Your task to perform on an android device: change the clock display to digital Image 0: 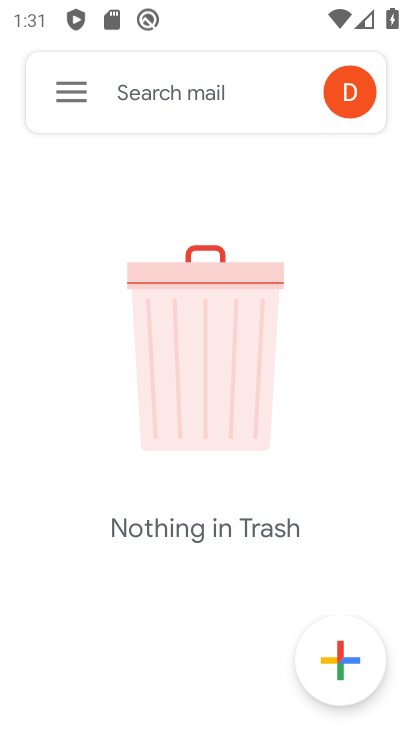
Step 0: press home button
Your task to perform on an android device: change the clock display to digital Image 1: 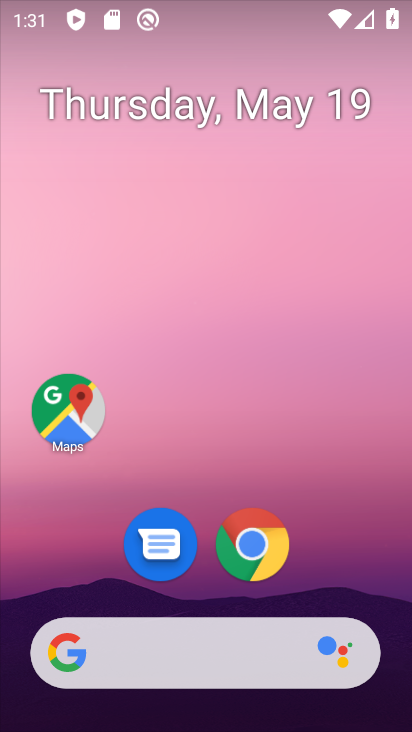
Step 1: drag from (239, 700) to (302, 111)
Your task to perform on an android device: change the clock display to digital Image 2: 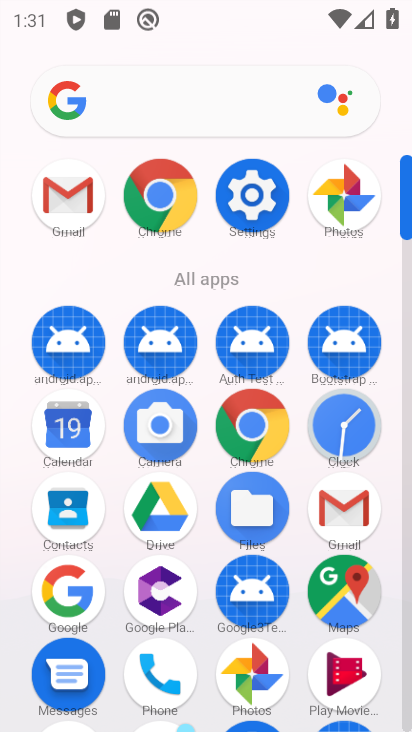
Step 2: click (346, 405)
Your task to perform on an android device: change the clock display to digital Image 3: 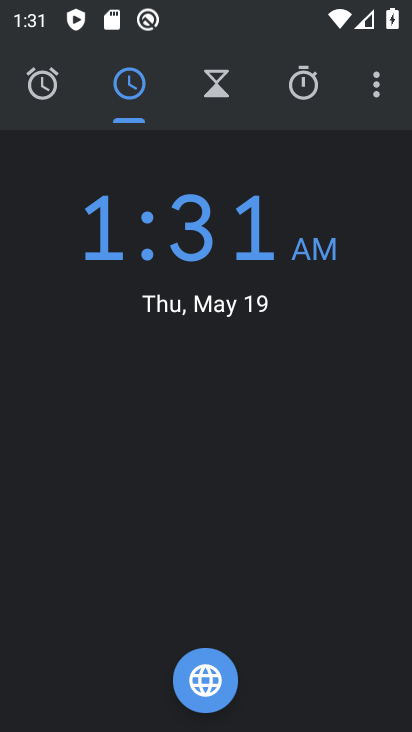
Step 3: click (382, 96)
Your task to perform on an android device: change the clock display to digital Image 4: 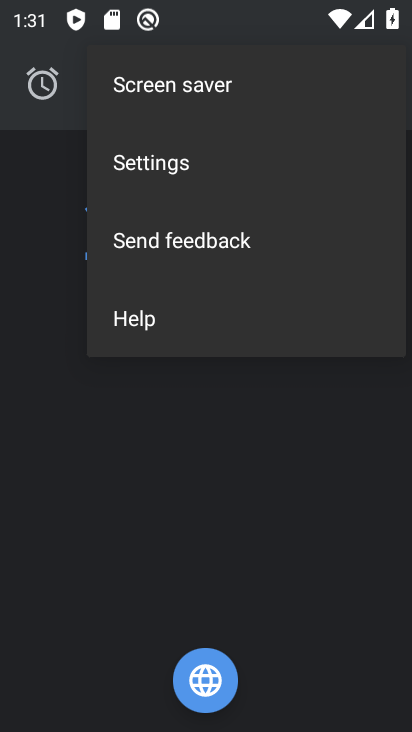
Step 4: click (172, 158)
Your task to perform on an android device: change the clock display to digital Image 5: 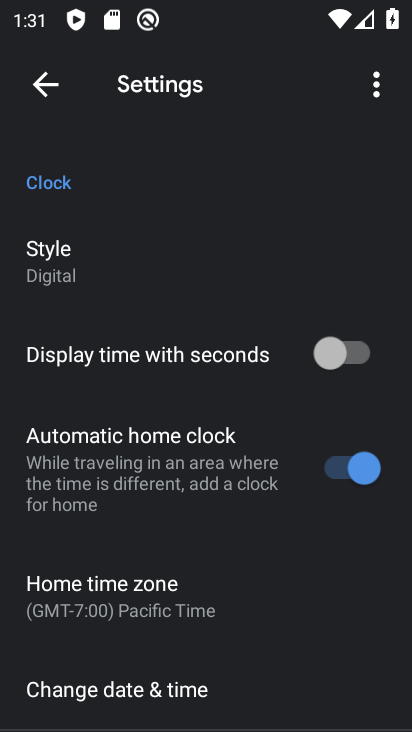
Step 5: click (56, 260)
Your task to perform on an android device: change the clock display to digital Image 6: 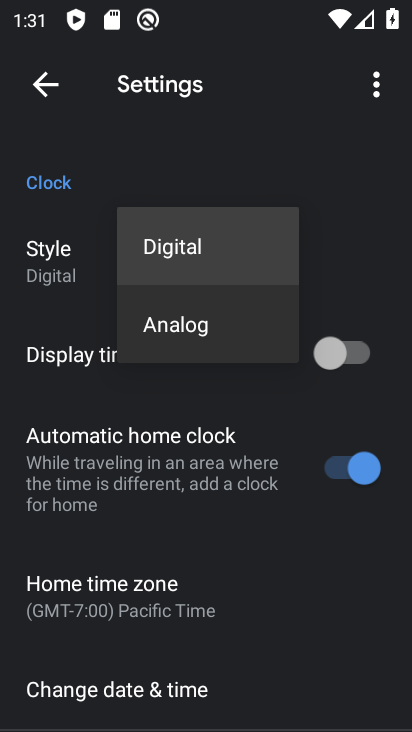
Step 6: click (198, 248)
Your task to perform on an android device: change the clock display to digital Image 7: 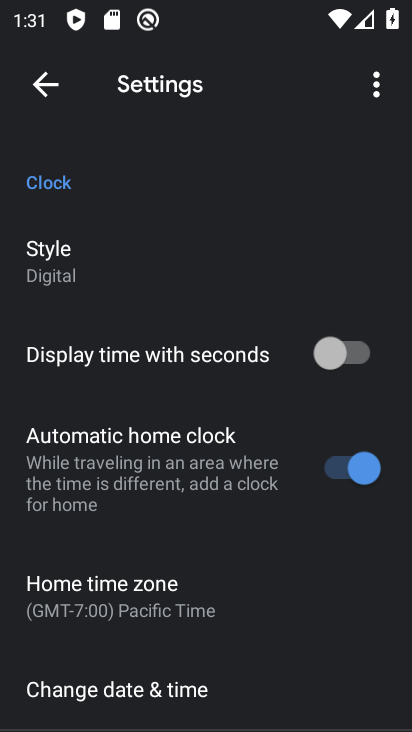
Step 7: task complete